Your task to perform on an android device: Is it going to rain tomorrow? Image 0: 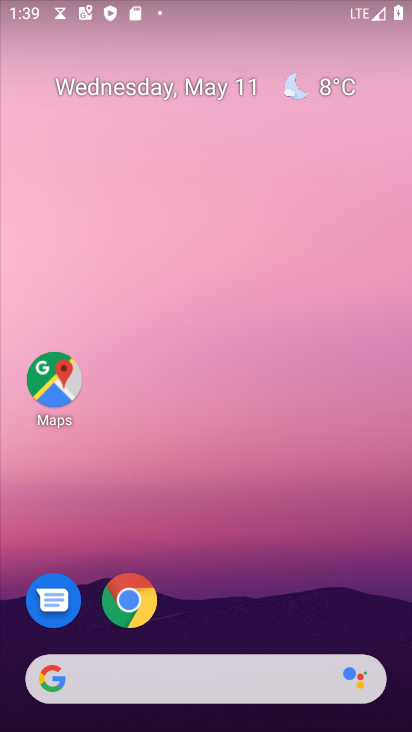
Step 0: drag from (271, 571) to (224, 123)
Your task to perform on an android device: Is it going to rain tomorrow? Image 1: 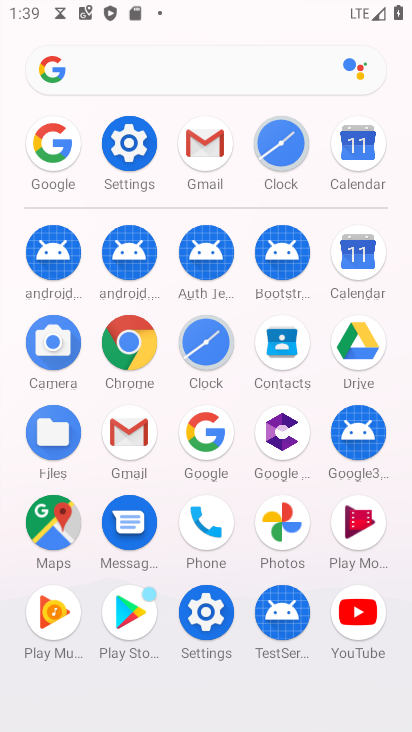
Step 1: click (202, 436)
Your task to perform on an android device: Is it going to rain tomorrow? Image 2: 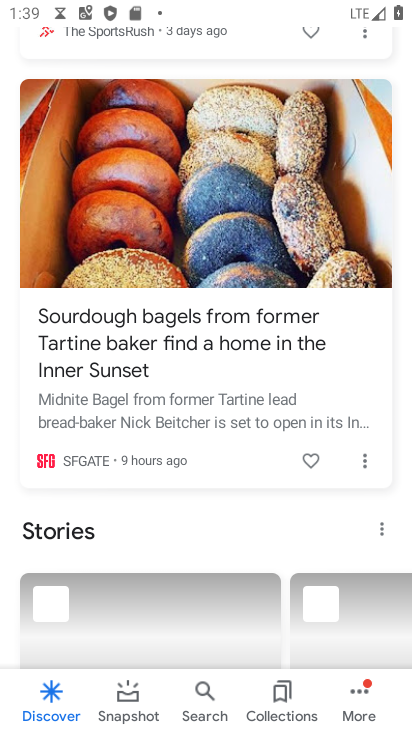
Step 2: drag from (212, 173) to (156, 699)
Your task to perform on an android device: Is it going to rain tomorrow? Image 3: 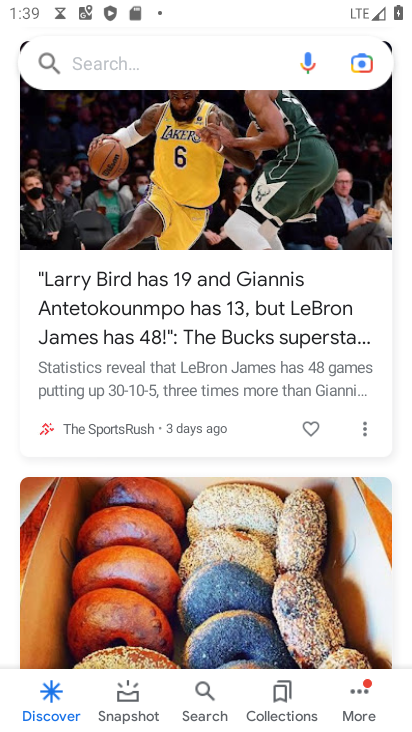
Step 3: drag from (209, 167) to (152, 696)
Your task to perform on an android device: Is it going to rain tomorrow? Image 4: 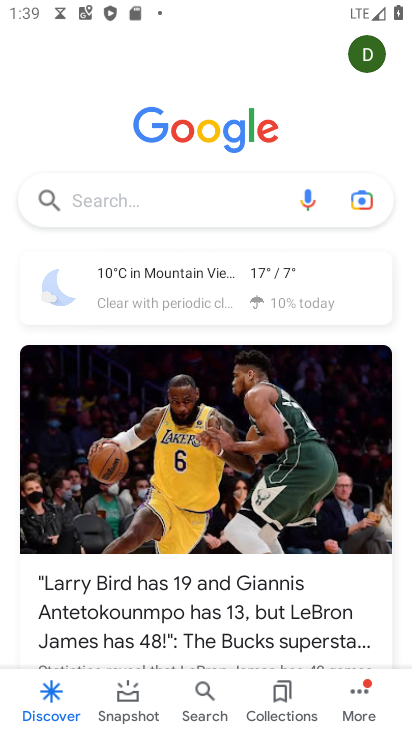
Step 4: click (183, 270)
Your task to perform on an android device: Is it going to rain tomorrow? Image 5: 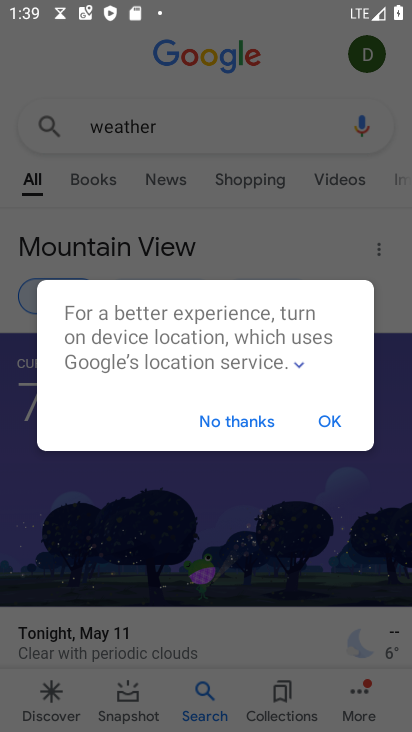
Step 5: click (262, 420)
Your task to perform on an android device: Is it going to rain tomorrow? Image 6: 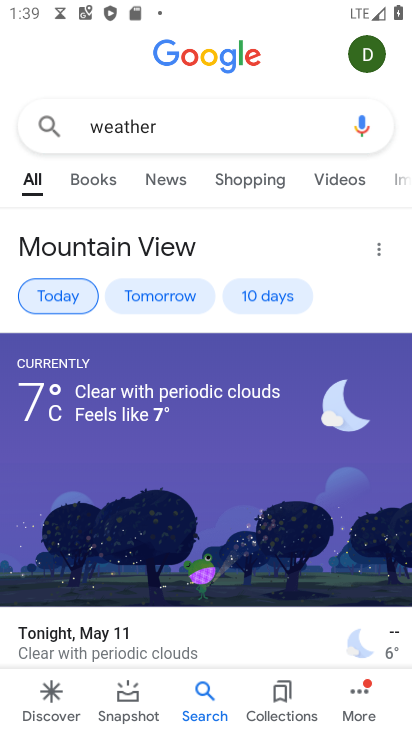
Step 6: click (168, 295)
Your task to perform on an android device: Is it going to rain tomorrow? Image 7: 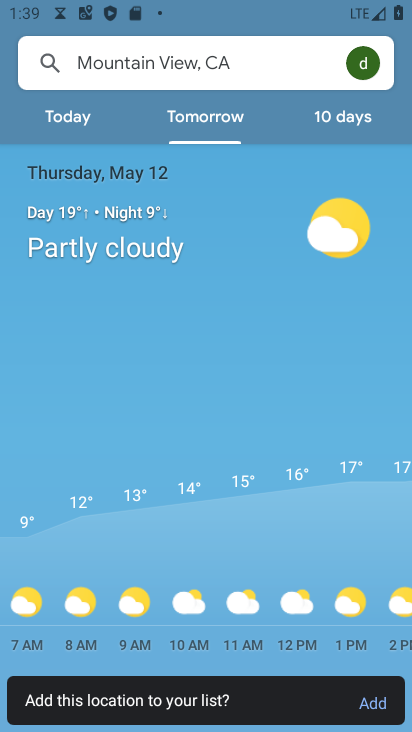
Step 7: task complete